Your task to perform on an android device: empty trash in google photos Image 0: 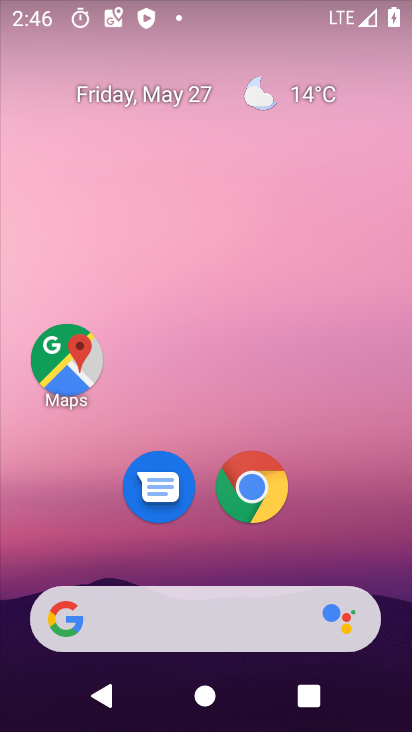
Step 0: drag from (349, 540) to (317, 212)
Your task to perform on an android device: empty trash in google photos Image 1: 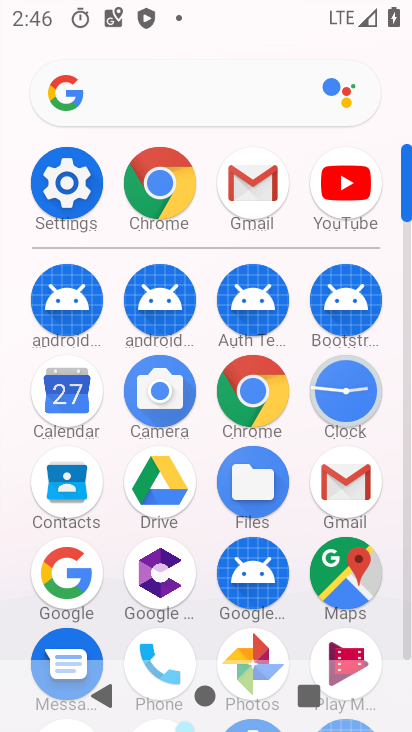
Step 1: click (256, 648)
Your task to perform on an android device: empty trash in google photos Image 2: 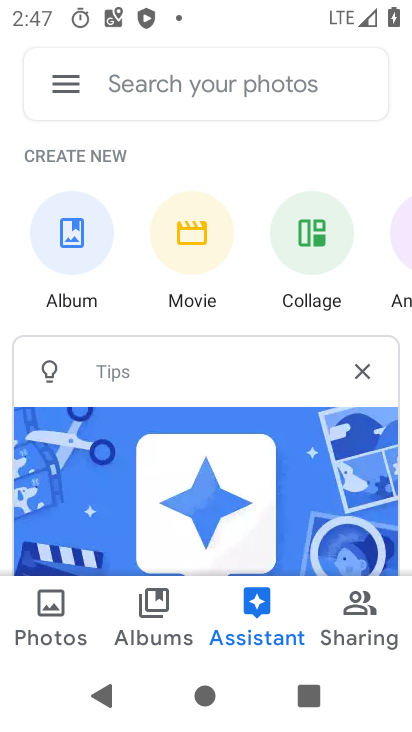
Step 2: click (48, 79)
Your task to perform on an android device: empty trash in google photos Image 3: 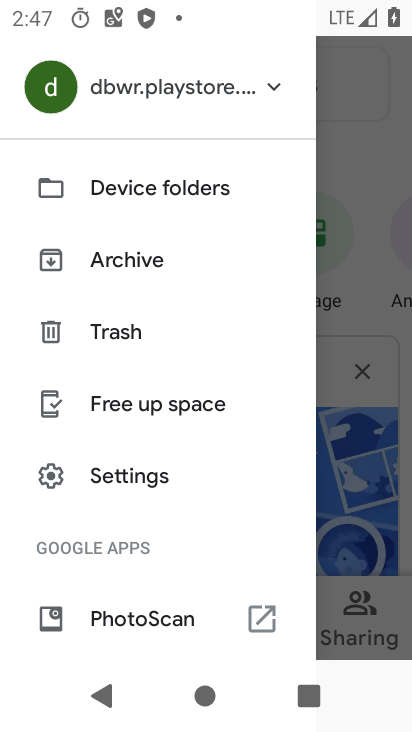
Step 3: drag from (173, 545) to (214, 392)
Your task to perform on an android device: empty trash in google photos Image 4: 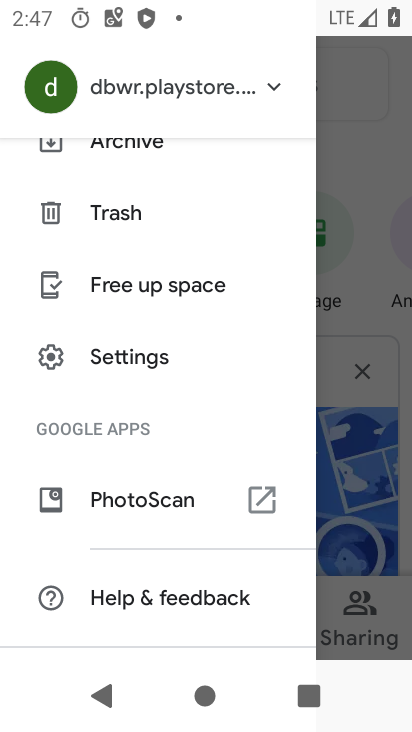
Step 4: click (129, 218)
Your task to perform on an android device: empty trash in google photos Image 5: 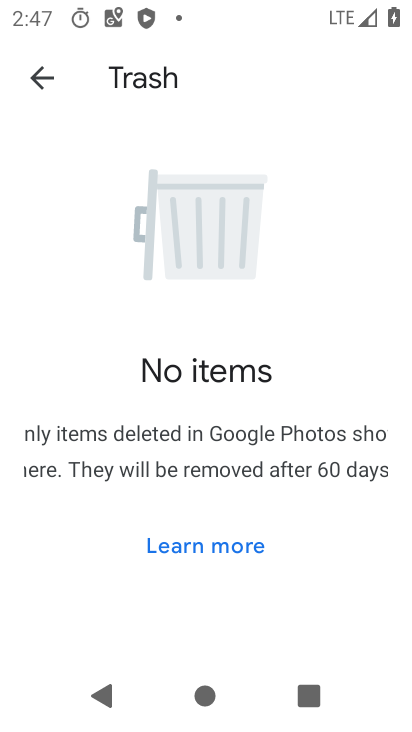
Step 5: task complete